Your task to perform on an android device: refresh tabs in the chrome app Image 0: 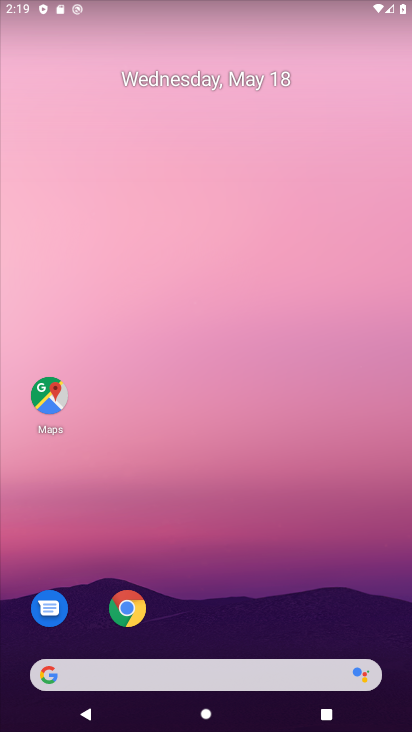
Step 0: click (130, 608)
Your task to perform on an android device: refresh tabs in the chrome app Image 1: 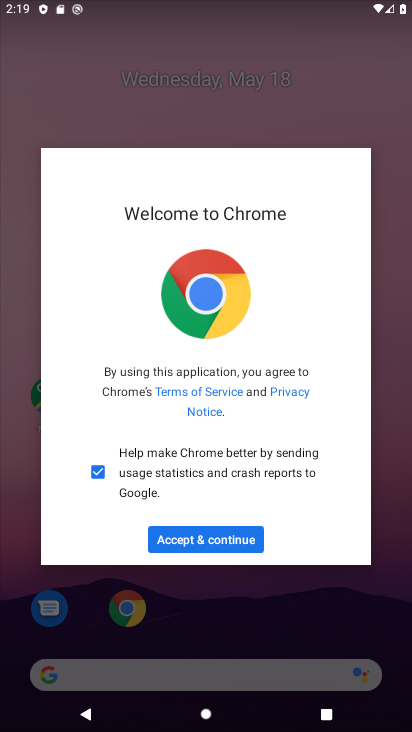
Step 1: click (212, 537)
Your task to perform on an android device: refresh tabs in the chrome app Image 2: 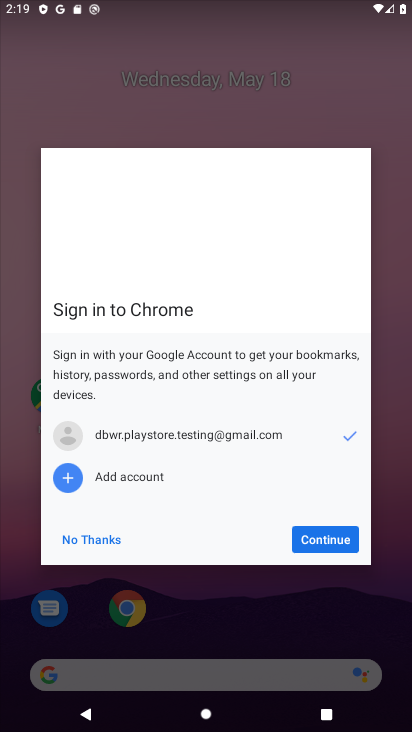
Step 2: click (95, 538)
Your task to perform on an android device: refresh tabs in the chrome app Image 3: 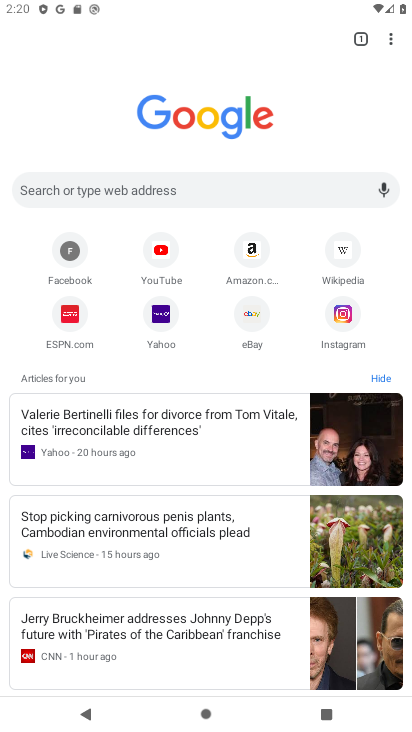
Step 3: click (391, 42)
Your task to perform on an android device: refresh tabs in the chrome app Image 4: 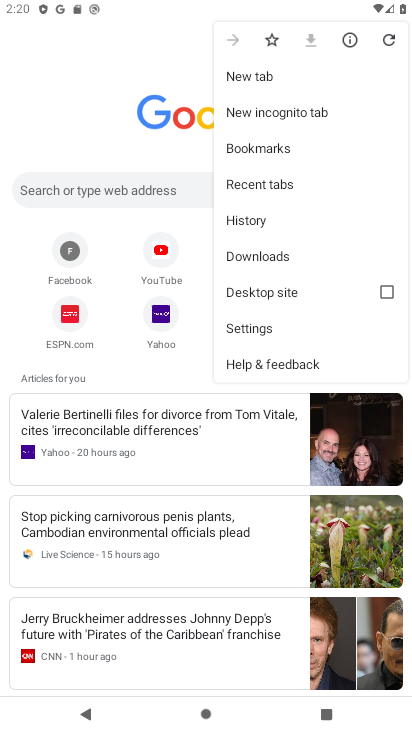
Step 4: click (391, 42)
Your task to perform on an android device: refresh tabs in the chrome app Image 5: 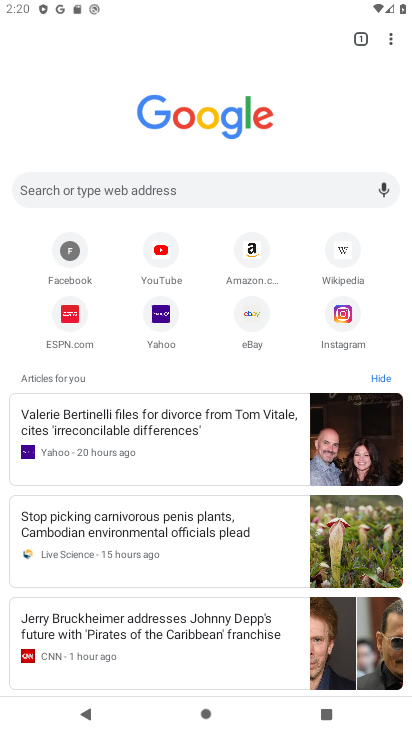
Step 5: task complete